Your task to perform on an android device: set the timer Image 0: 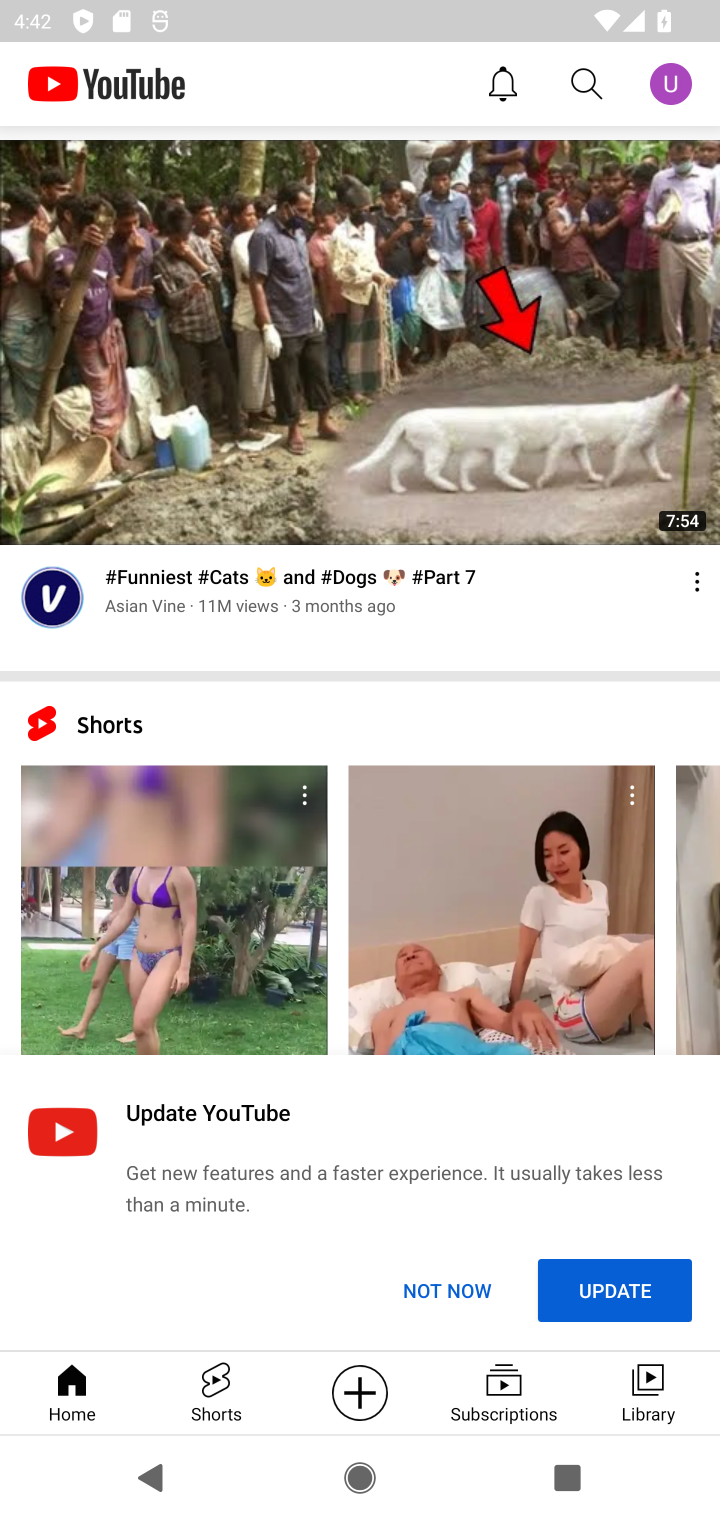
Step 0: press home button
Your task to perform on an android device: set the timer Image 1: 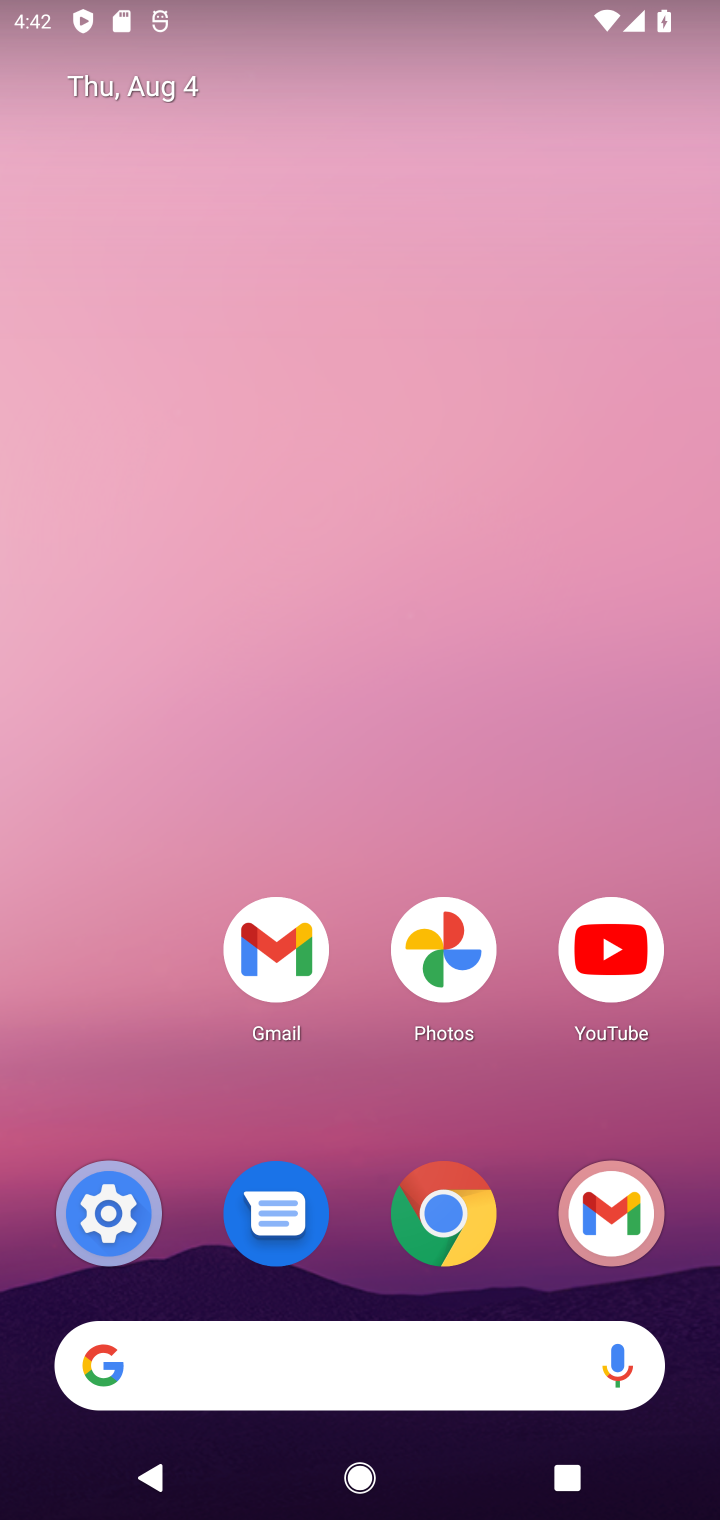
Step 1: drag from (94, 1064) to (162, 337)
Your task to perform on an android device: set the timer Image 2: 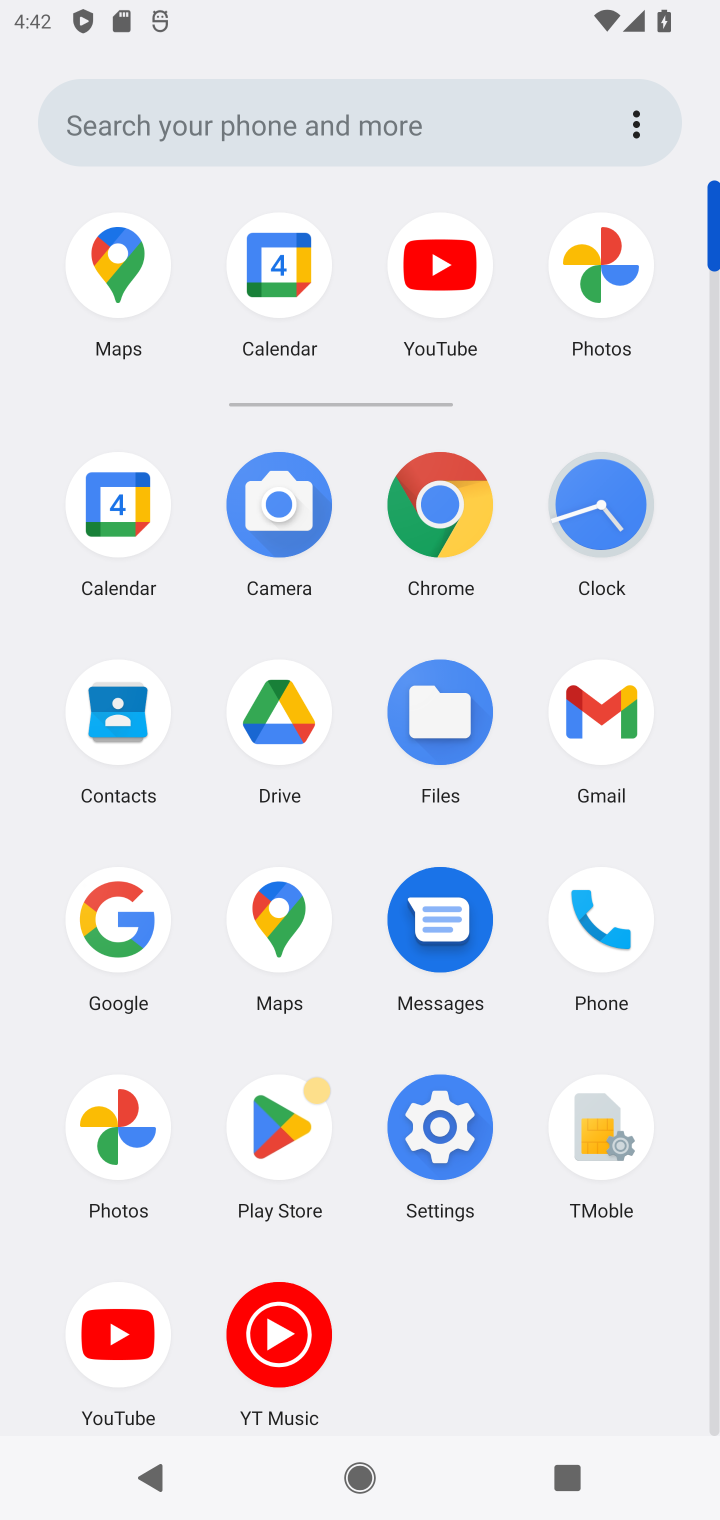
Step 2: click (604, 514)
Your task to perform on an android device: set the timer Image 3: 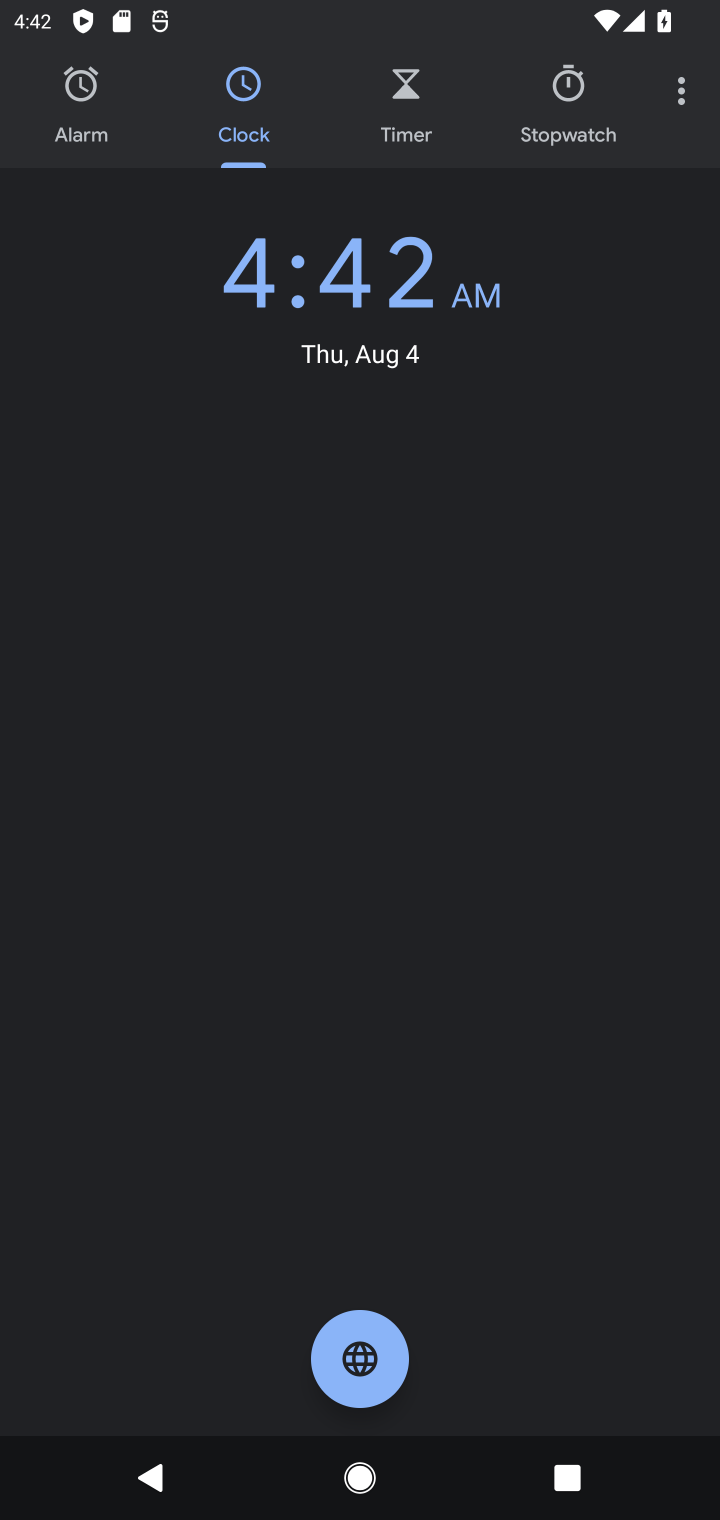
Step 3: click (406, 100)
Your task to perform on an android device: set the timer Image 4: 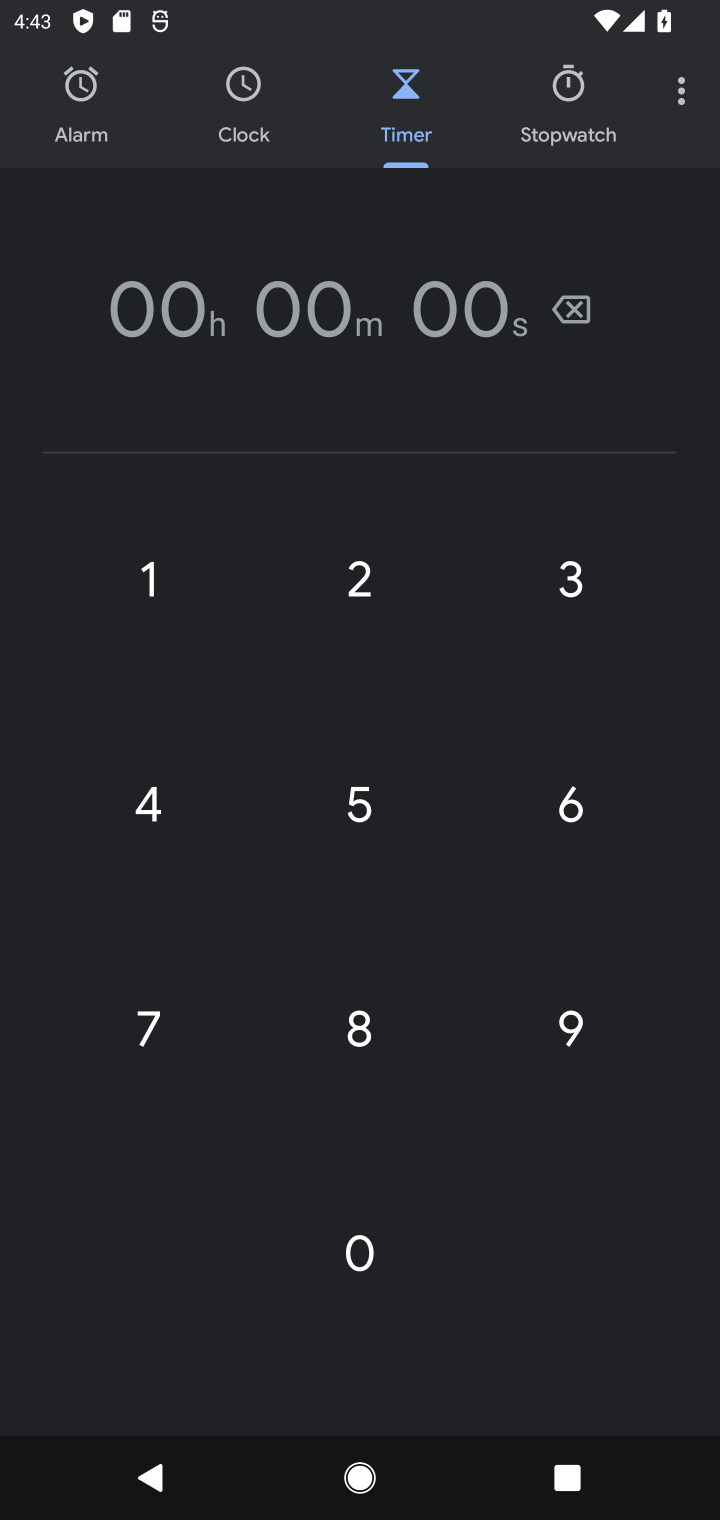
Step 4: click (372, 810)
Your task to perform on an android device: set the timer Image 5: 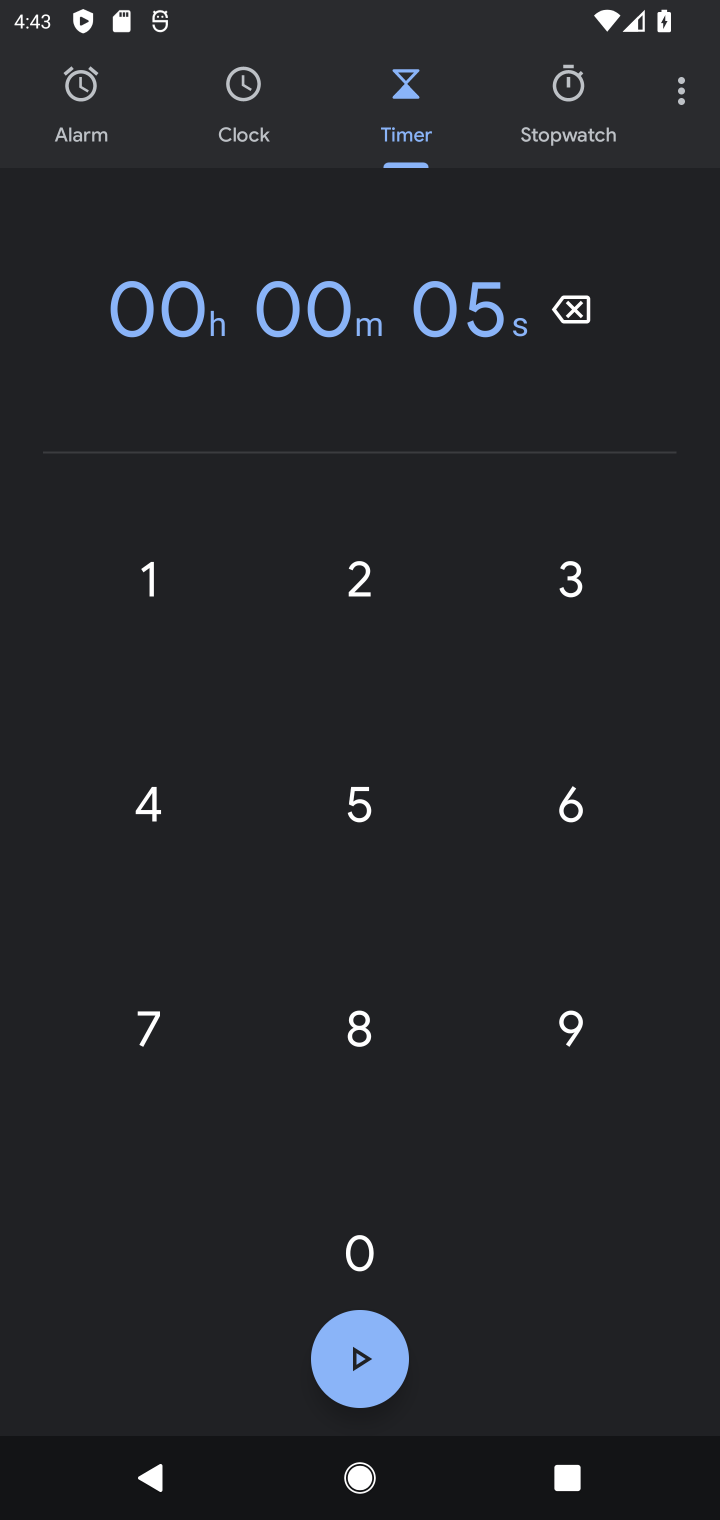
Step 5: task complete